Your task to perform on an android device: check android version Image 0: 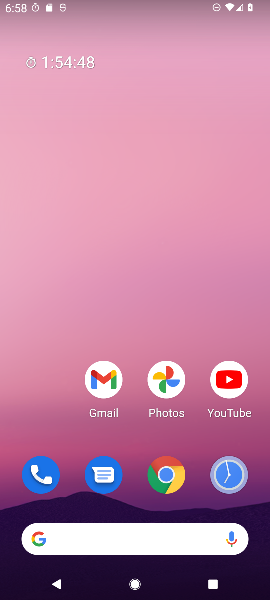
Step 0: press home button
Your task to perform on an android device: check android version Image 1: 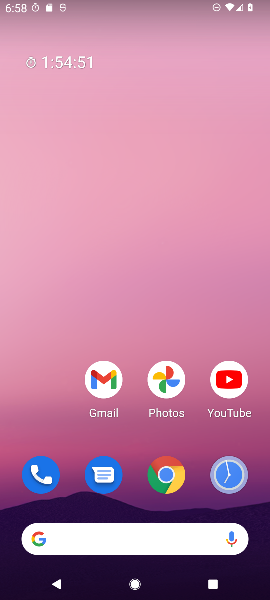
Step 1: drag from (48, 415) to (46, 139)
Your task to perform on an android device: check android version Image 2: 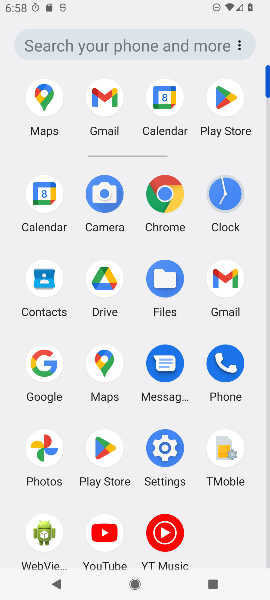
Step 2: click (171, 455)
Your task to perform on an android device: check android version Image 3: 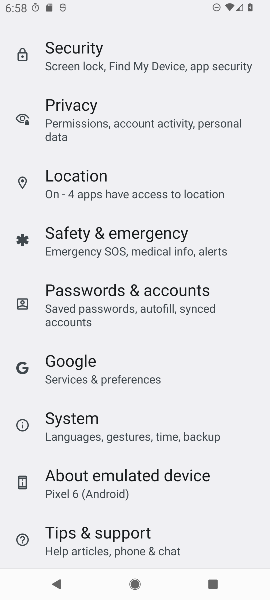
Step 3: drag from (254, 197) to (247, 281)
Your task to perform on an android device: check android version Image 4: 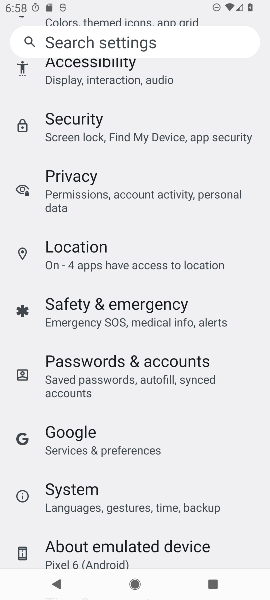
Step 4: drag from (249, 156) to (258, 252)
Your task to perform on an android device: check android version Image 5: 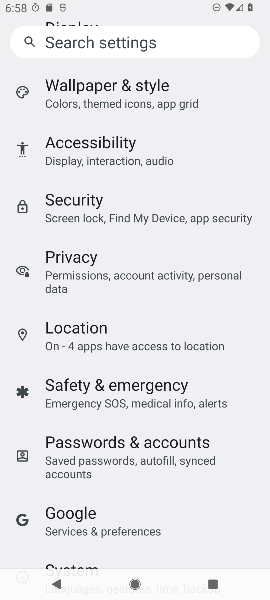
Step 5: drag from (242, 105) to (250, 278)
Your task to perform on an android device: check android version Image 6: 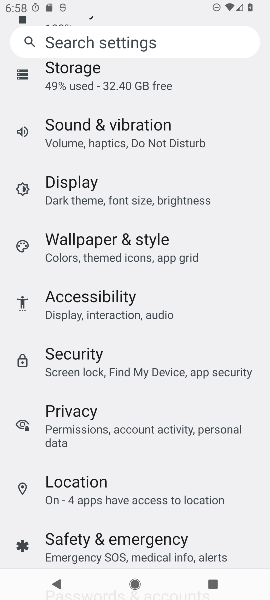
Step 6: drag from (237, 132) to (240, 275)
Your task to perform on an android device: check android version Image 7: 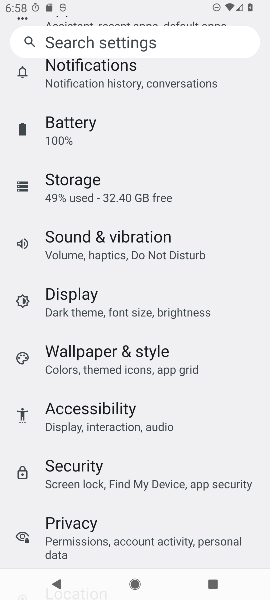
Step 7: drag from (227, 386) to (240, 252)
Your task to perform on an android device: check android version Image 8: 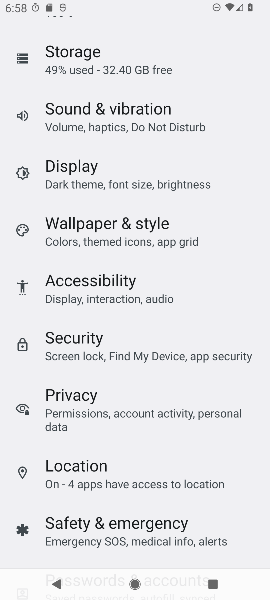
Step 8: drag from (238, 429) to (241, 331)
Your task to perform on an android device: check android version Image 9: 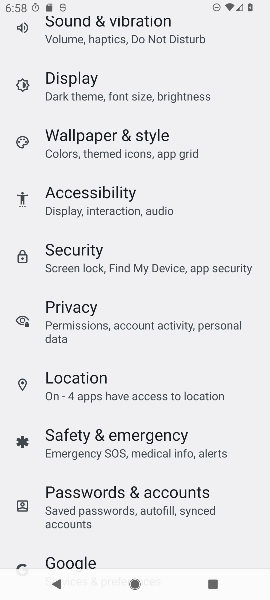
Step 9: drag from (233, 468) to (239, 360)
Your task to perform on an android device: check android version Image 10: 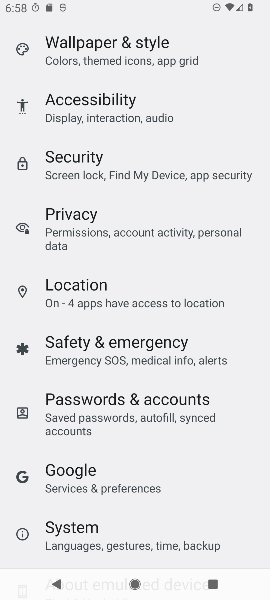
Step 10: drag from (218, 477) to (240, 357)
Your task to perform on an android device: check android version Image 11: 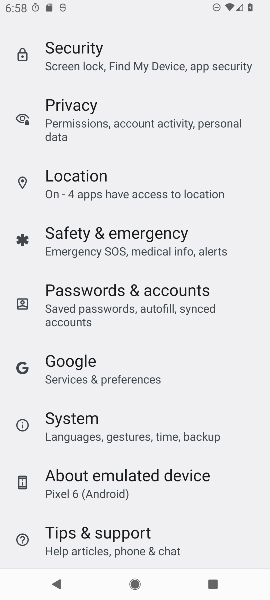
Step 11: drag from (239, 513) to (246, 376)
Your task to perform on an android device: check android version Image 12: 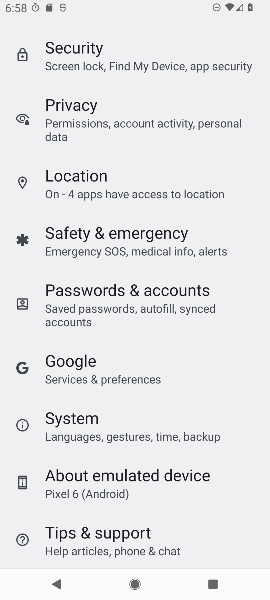
Step 12: click (122, 425)
Your task to perform on an android device: check android version Image 13: 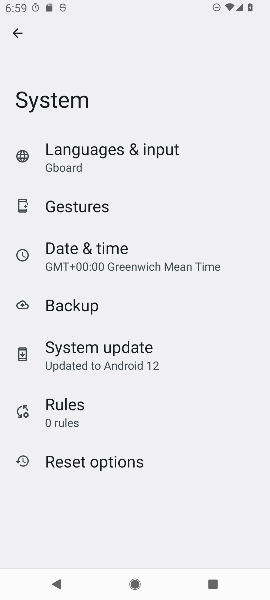
Step 13: task complete